Your task to perform on an android device: Add "duracell triple a" to the cart on walmart.com, then select checkout. Image 0: 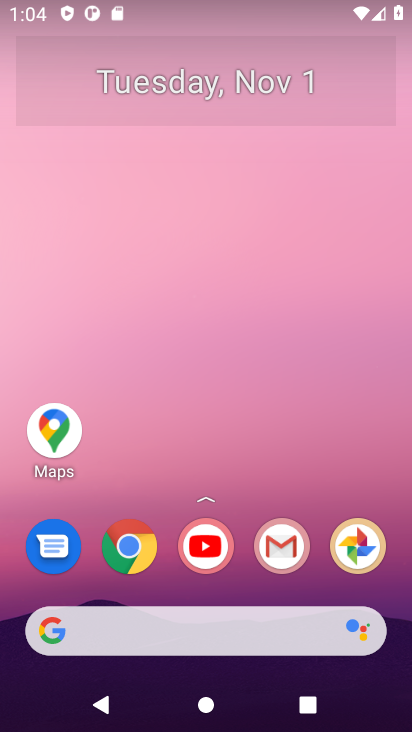
Step 0: click (137, 555)
Your task to perform on an android device: Add "duracell triple a" to the cart on walmart.com, then select checkout. Image 1: 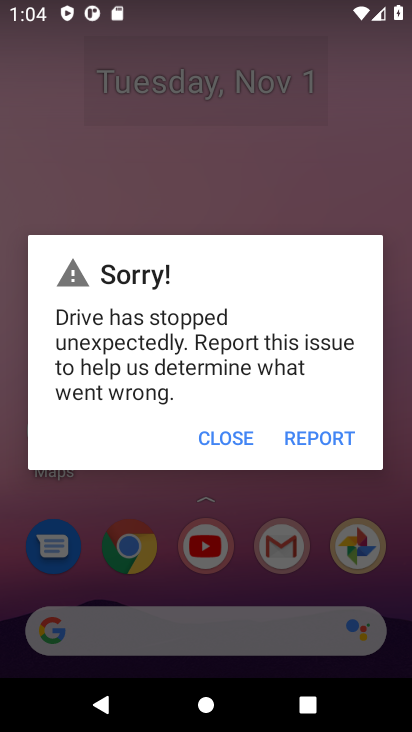
Step 1: click (232, 439)
Your task to perform on an android device: Add "duracell triple a" to the cart on walmart.com, then select checkout. Image 2: 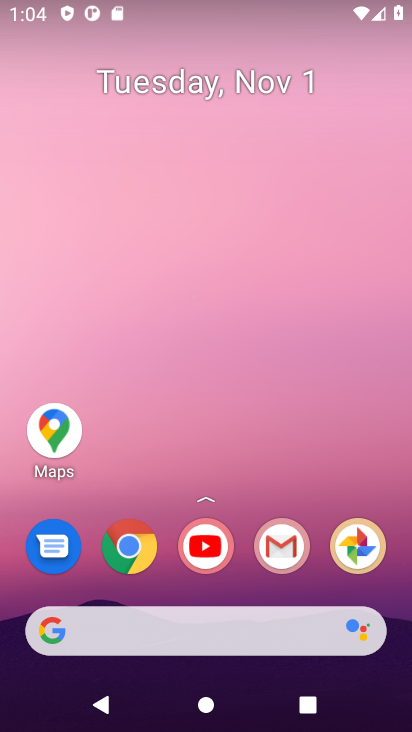
Step 2: click (141, 585)
Your task to perform on an android device: Add "duracell triple a" to the cart on walmart.com, then select checkout. Image 3: 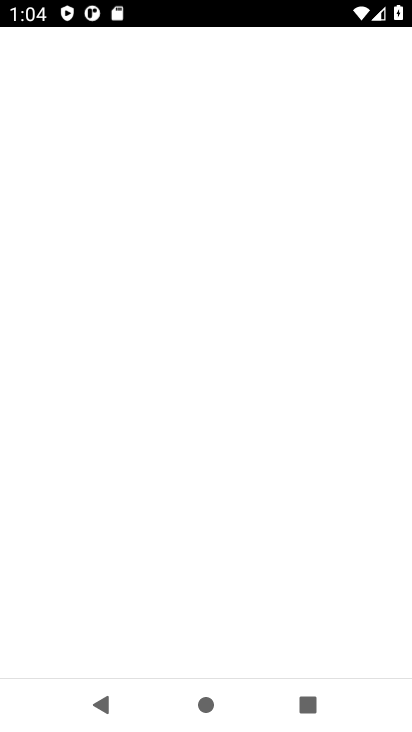
Step 3: click (132, 565)
Your task to perform on an android device: Add "duracell triple a" to the cart on walmart.com, then select checkout. Image 4: 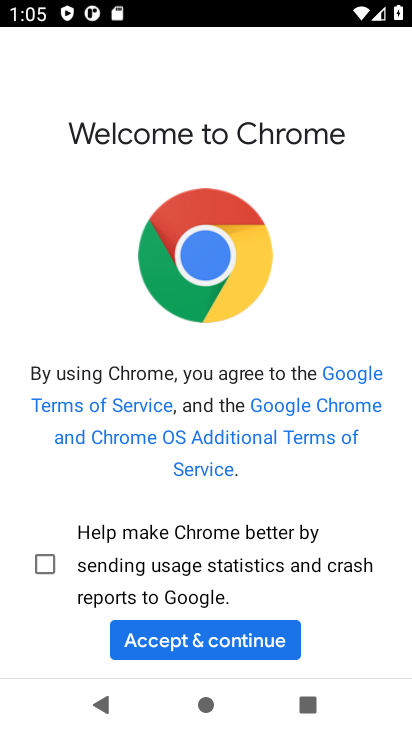
Step 4: click (229, 636)
Your task to perform on an android device: Add "duracell triple a" to the cart on walmart.com, then select checkout. Image 5: 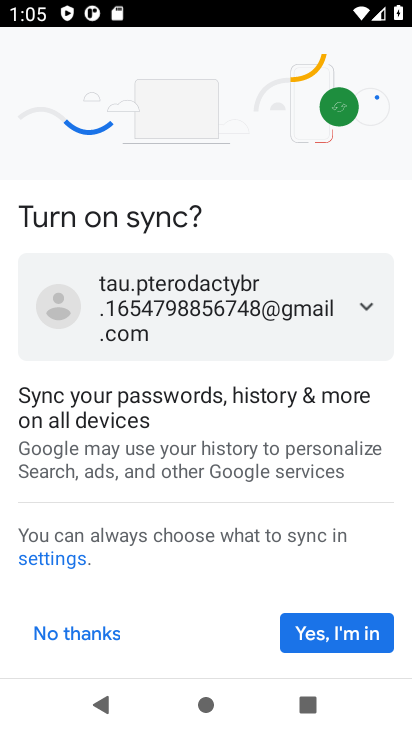
Step 5: click (310, 632)
Your task to perform on an android device: Add "duracell triple a" to the cart on walmart.com, then select checkout. Image 6: 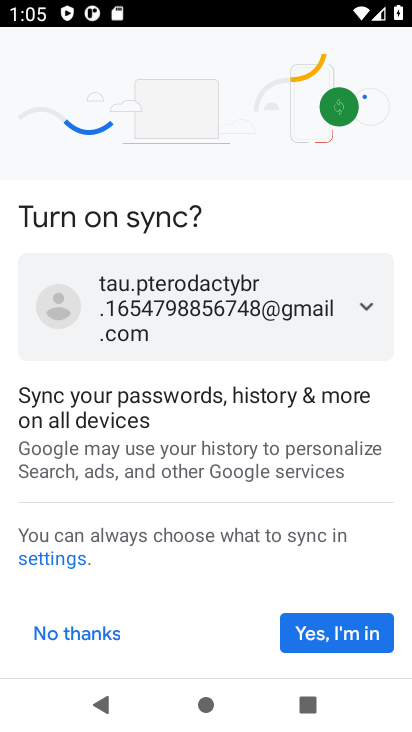
Step 6: click (310, 632)
Your task to perform on an android device: Add "duracell triple a" to the cart on walmart.com, then select checkout. Image 7: 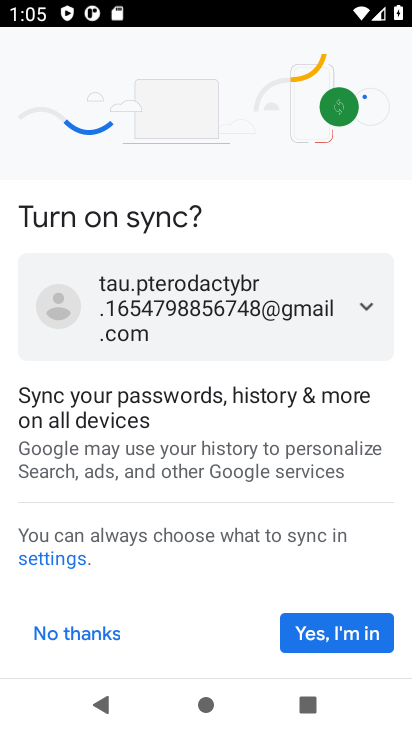
Step 7: click (310, 632)
Your task to perform on an android device: Add "duracell triple a" to the cart on walmart.com, then select checkout. Image 8: 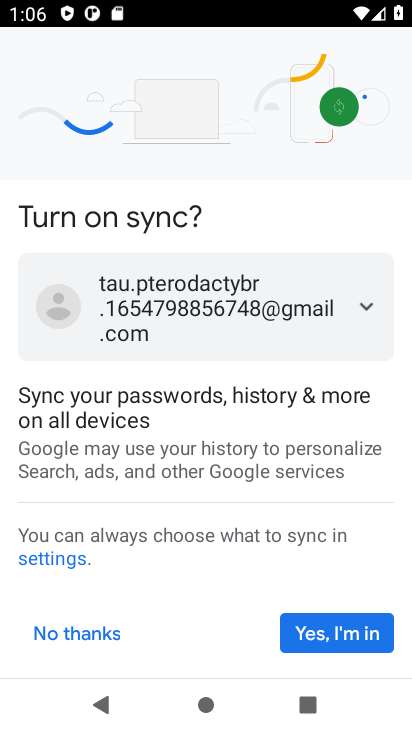
Step 8: click (310, 632)
Your task to perform on an android device: Add "duracell triple a" to the cart on walmart.com, then select checkout. Image 9: 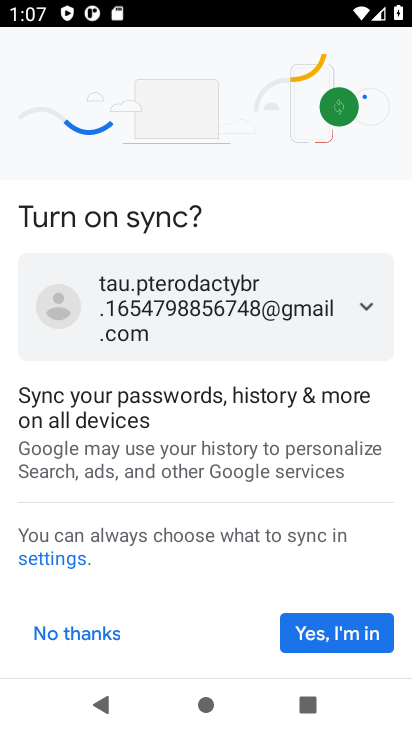
Step 9: click (351, 637)
Your task to perform on an android device: Add "duracell triple a" to the cart on walmart.com, then select checkout. Image 10: 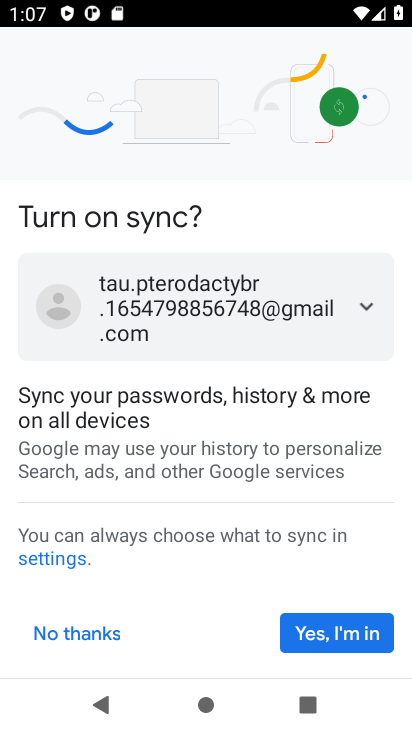
Step 10: click (351, 637)
Your task to perform on an android device: Add "duracell triple a" to the cart on walmart.com, then select checkout. Image 11: 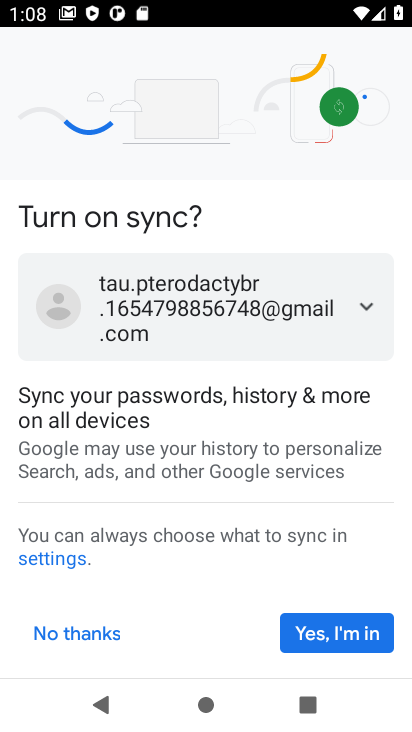
Step 11: task complete